Your task to perform on an android device: choose inbox layout in the gmail app Image 0: 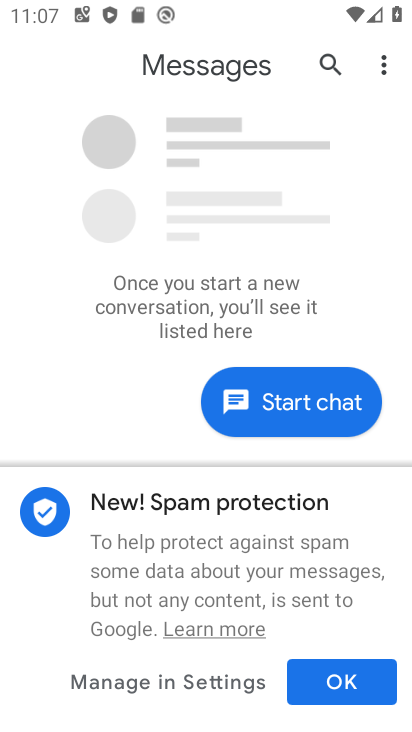
Step 0: press back button
Your task to perform on an android device: choose inbox layout in the gmail app Image 1: 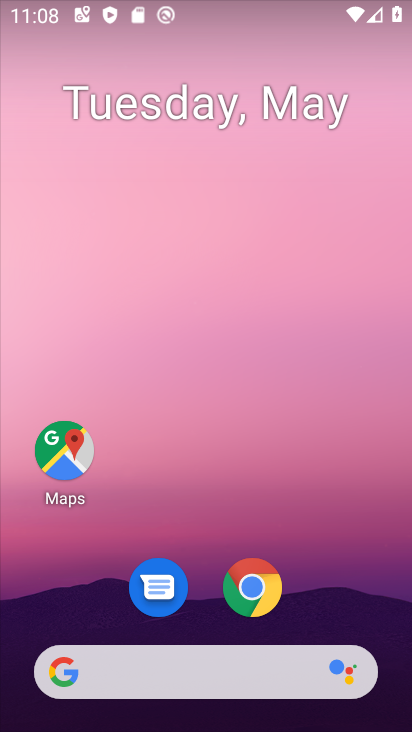
Step 1: drag from (330, 599) to (249, 59)
Your task to perform on an android device: choose inbox layout in the gmail app Image 2: 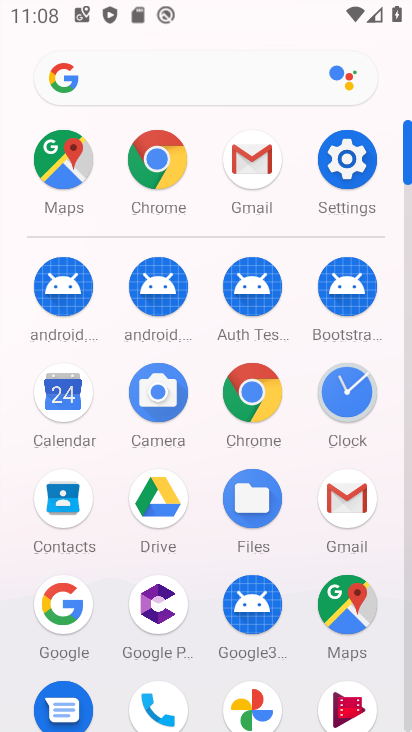
Step 2: drag from (4, 559) to (3, 337)
Your task to perform on an android device: choose inbox layout in the gmail app Image 3: 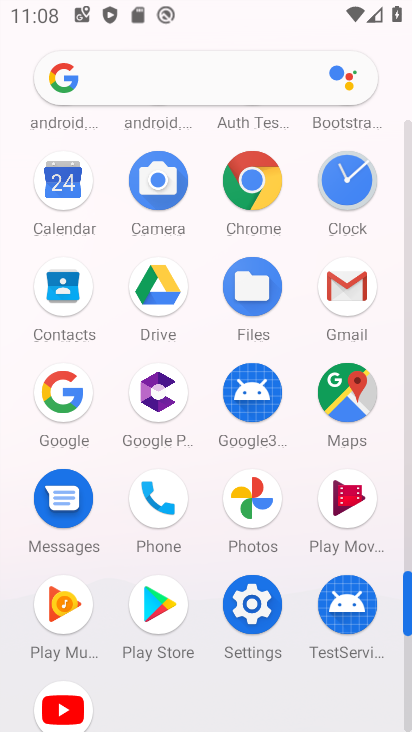
Step 3: click (346, 283)
Your task to perform on an android device: choose inbox layout in the gmail app Image 4: 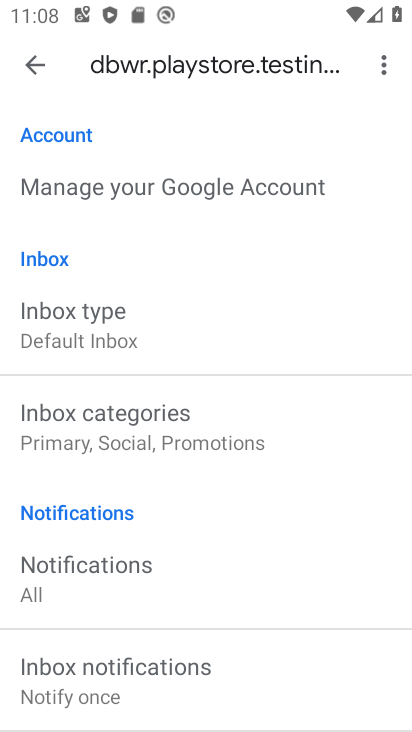
Step 4: click (34, 63)
Your task to perform on an android device: choose inbox layout in the gmail app Image 5: 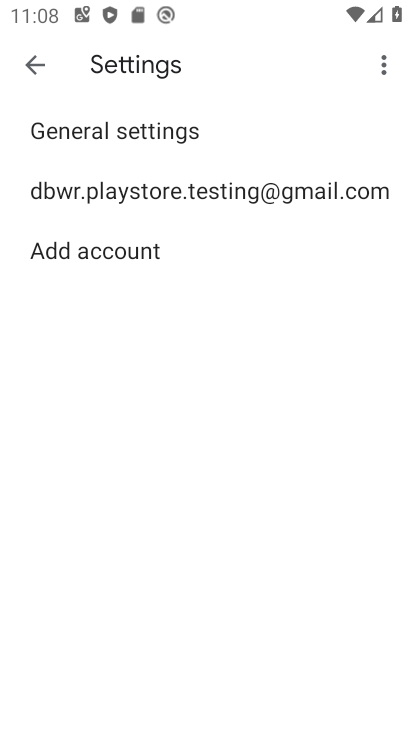
Step 5: click (34, 63)
Your task to perform on an android device: choose inbox layout in the gmail app Image 6: 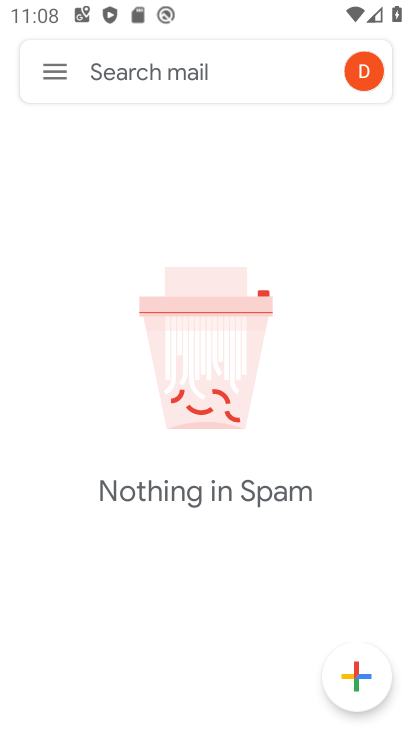
Step 6: click (34, 63)
Your task to perform on an android device: choose inbox layout in the gmail app Image 7: 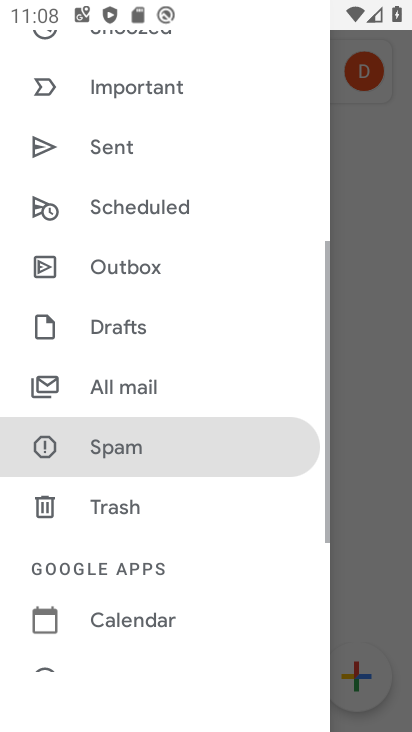
Step 7: drag from (137, 636) to (167, 189)
Your task to perform on an android device: choose inbox layout in the gmail app Image 8: 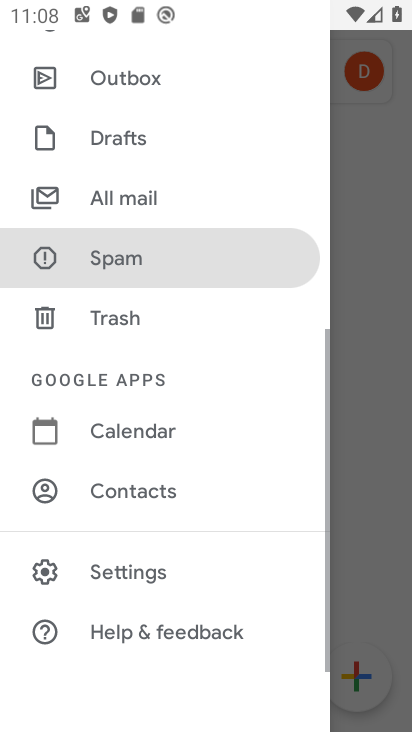
Step 8: click (105, 581)
Your task to perform on an android device: choose inbox layout in the gmail app Image 9: 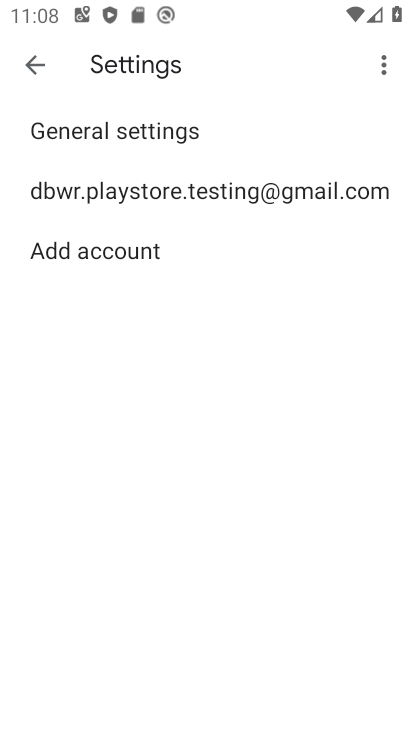
Step 9: click (140, 182)
Your task to perform on an android device: choose inbox layout in the gmail app Image 10: 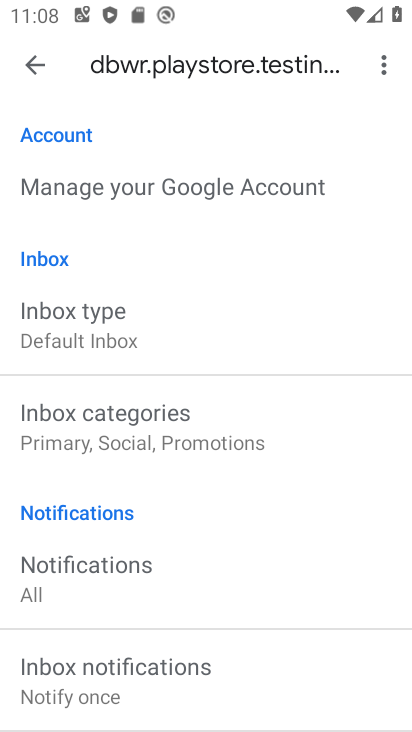
Step 10: click (152, 336)
Your task to perform on an android device: choose inbox layout in the gmail app Image 11: 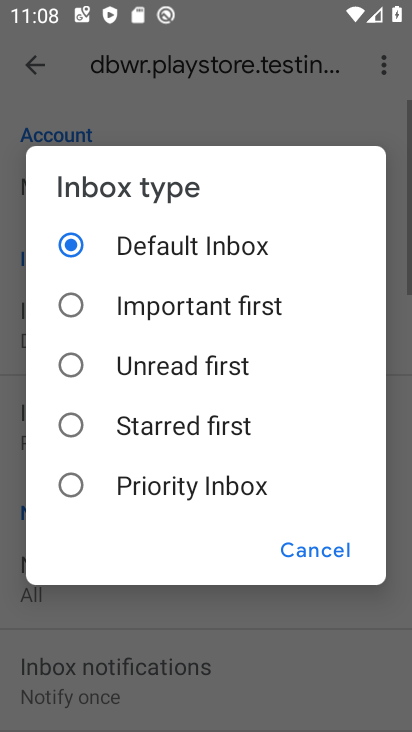
Step 11: click (151, 304)
Your task to perform on an android device: choose inbox layout in the gmail app Image 12: 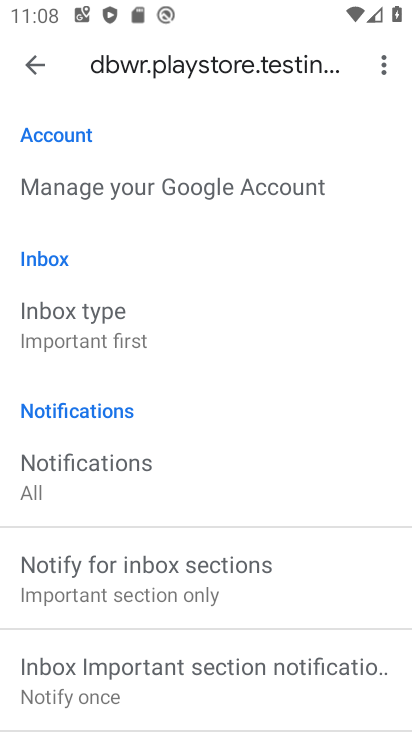
Step 12: task complete